Your task to perform on an android device: open chrome and create a bookmark for the current page Image 0: 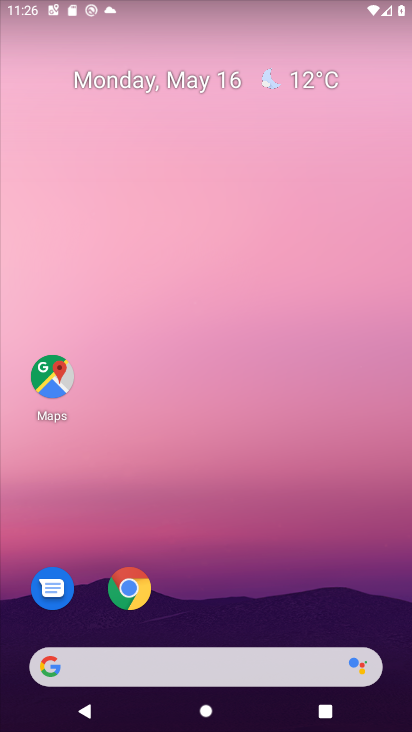
Step 0: drag from (215, 625) to (252, 47)
Your task to perform on an android device: open chrome and create a bookmark for the current page Image 1: 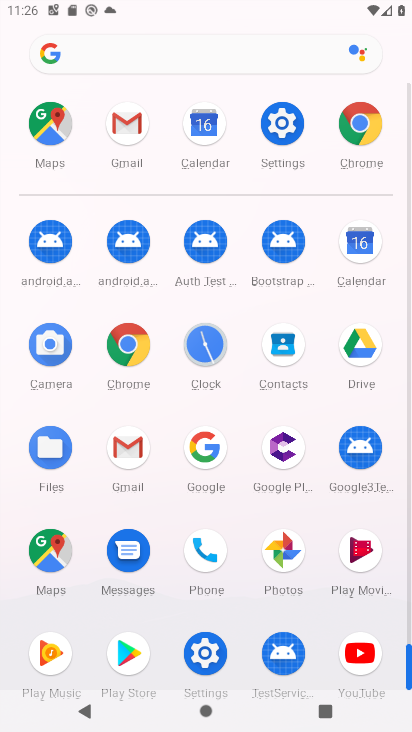
Step 1: click (125, 341)
Your task to perform on an android device: open chrome and create a bookmark for the current page Image 2: 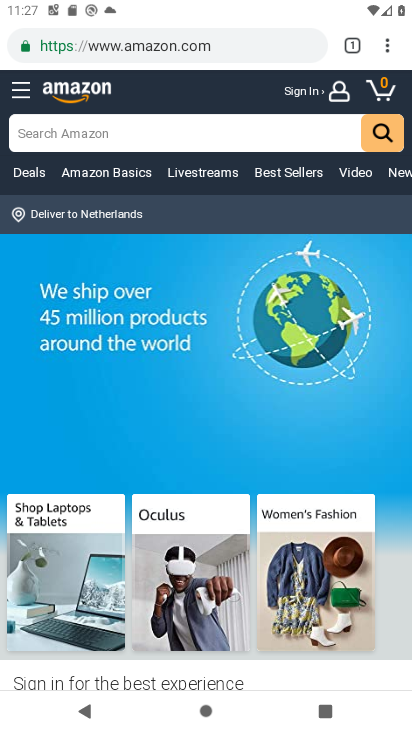
Step 2: click (388, 52)
Your task to perform on an android device: open chrome and create a bookmark for the current page Image 3: 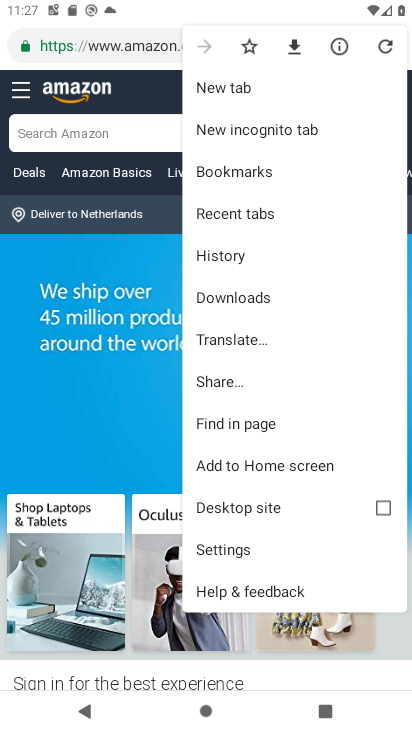
Step 3: click (249, 43)
Your task to perform on an android device: open chrome and create a bookmark for the current page Image 4: 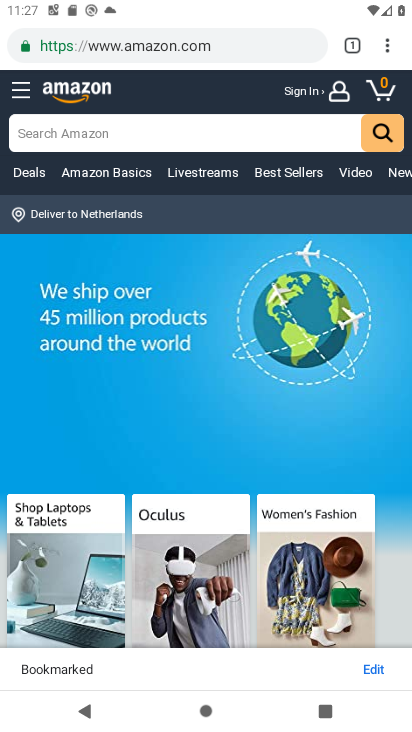
Step 4: task complete